Your task to perform on an android device: Open Google Maps and go to "Timeline" Image 0: 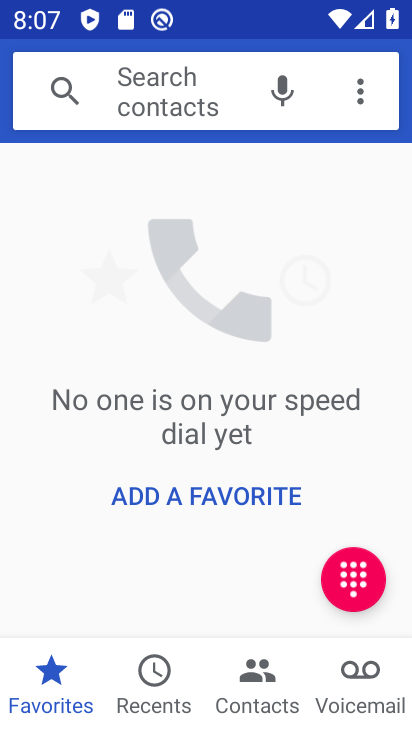
Step 0: press home button
Your task to perform on an android device: Open Google Maps and go to "Timeline" Image 1: 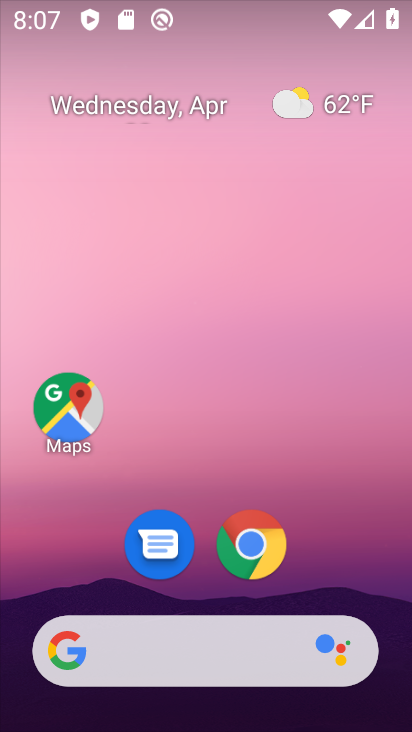
Step 1: click (65, 403)
Your task to perform on an android device: Open Google Maps and go to "Timeline" Image 2: 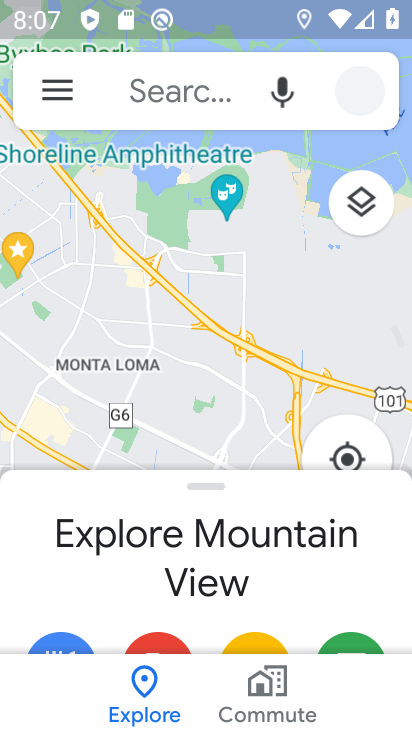
Step 2: click (59, 91)
Your task to perform on an android device: Open Google Maps and go to "Timeline" Image 3: 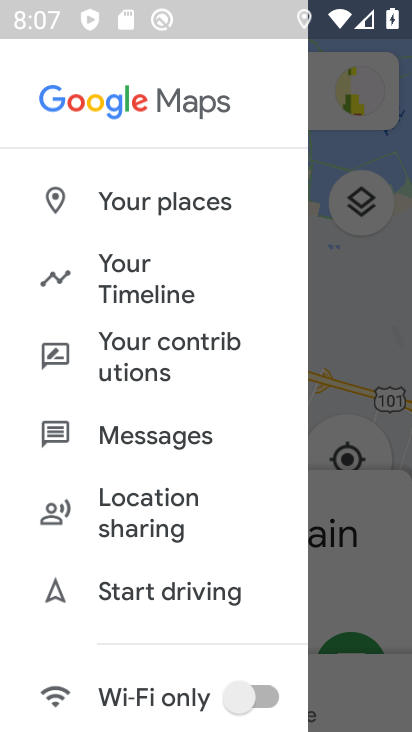
Step 3: click (103, 274)
Your task to perform on an android device: Open Google Maps and go to "Timeline" Image 4: 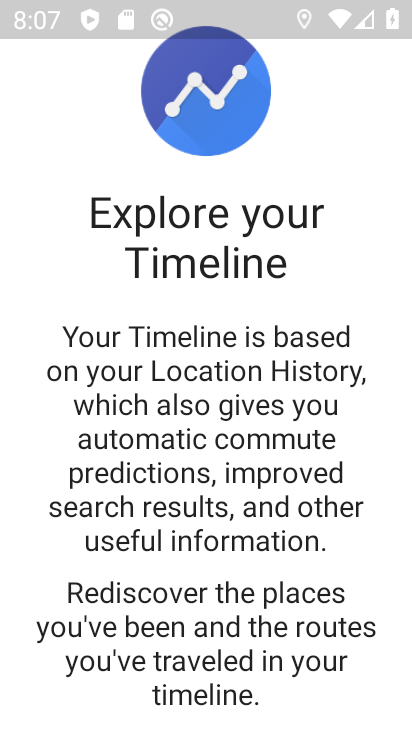
Step 4: task complete